Your task to perform on an android device: Open maps Image 0: 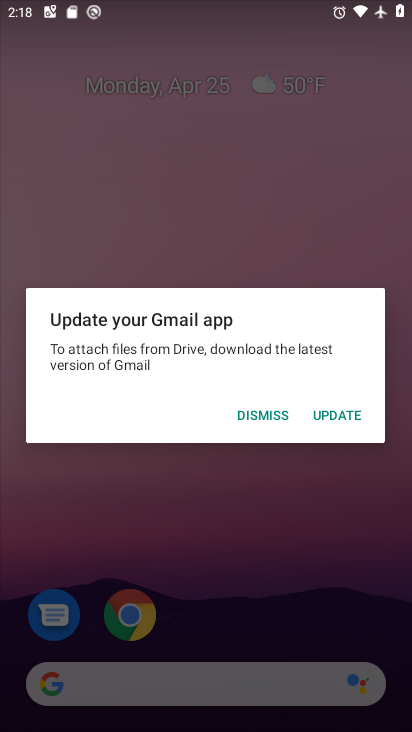
Step 0: press home button
Your task to perform on an android device: Open maps Image 1: 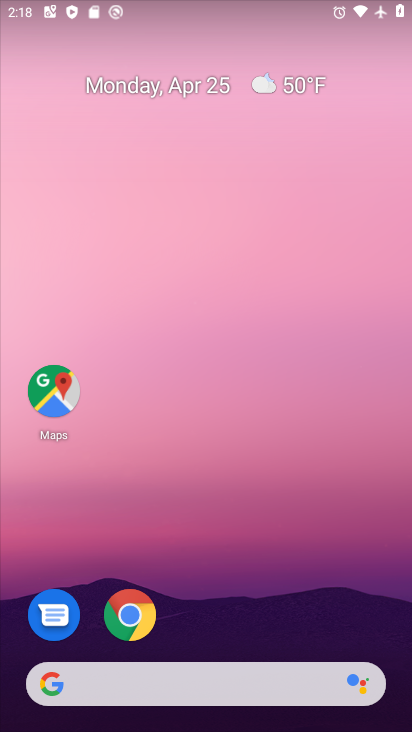
Step 1: click (53, 394)
Your task to perform on an android device: Open maps Image 2: 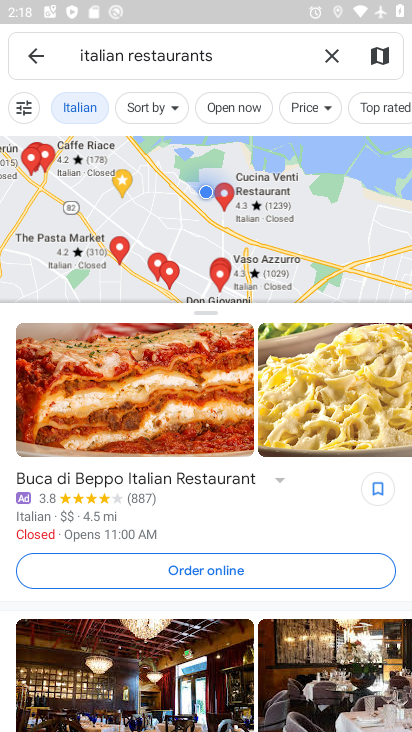
Step 2: click (329, 50)
Your task to perform on an android device: Open maps Image 3: 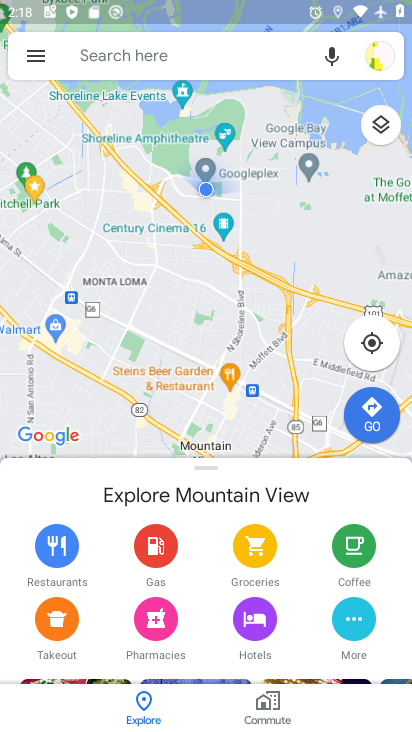
Step 3: task complete